Your task to perform on an android device: turn pop-ups on in chrome Image 0: 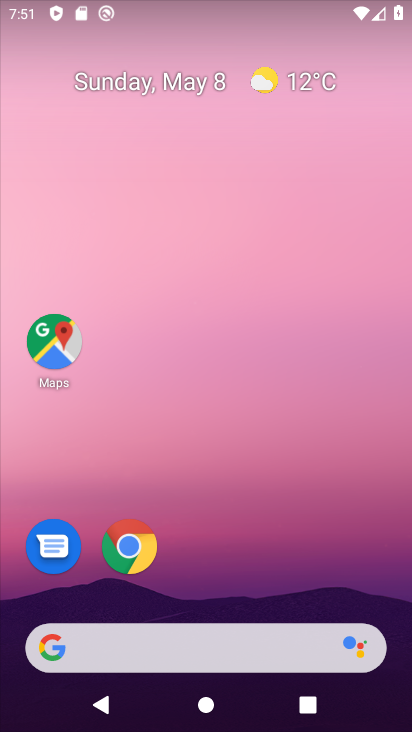
Step 0: click (109, 531)
Your task to perform on an android device: turn pop-ups on in chrome Image 1: 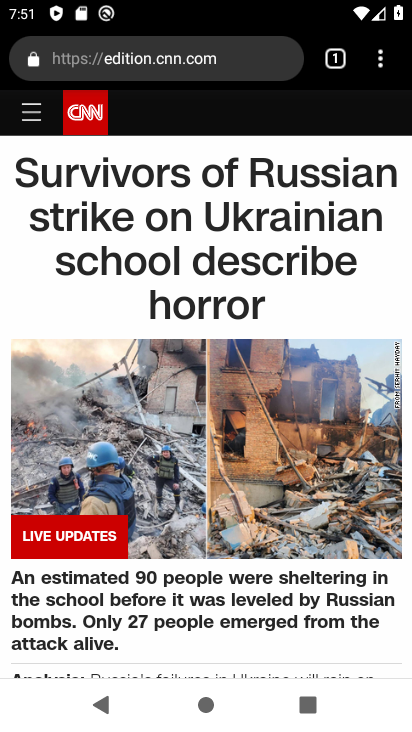
Step 1: task complete